Your task to perform on an android device: toggle notification dots Image 0: 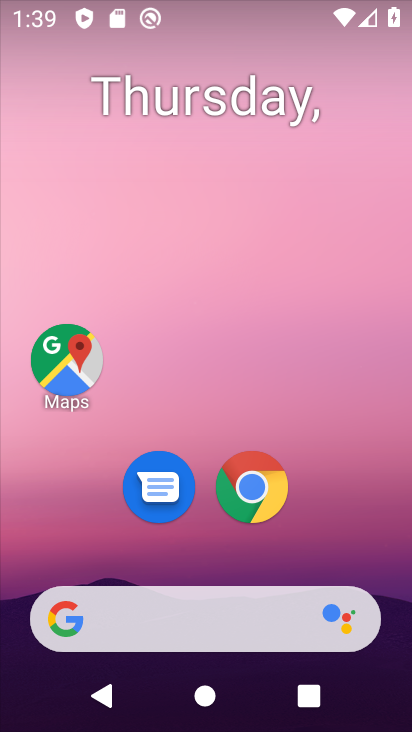
Step 0: drag from (314, 544) to (303, 0)
Your task to perform on an android device: toggle notification dots Image 1: 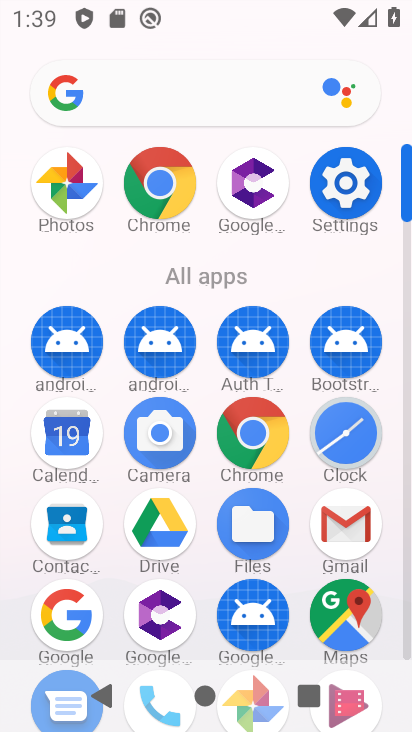
Step 1: click (337, 169)
Your task to perform on an android device: toggle notification dots Image 2: 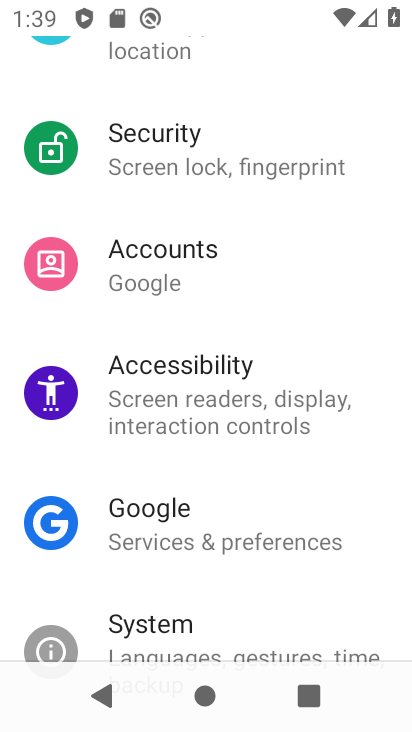
Step 2: drag from (154, 361) to (105, 585)
Your task to perform on an android device: toggle notification dots Image 3: 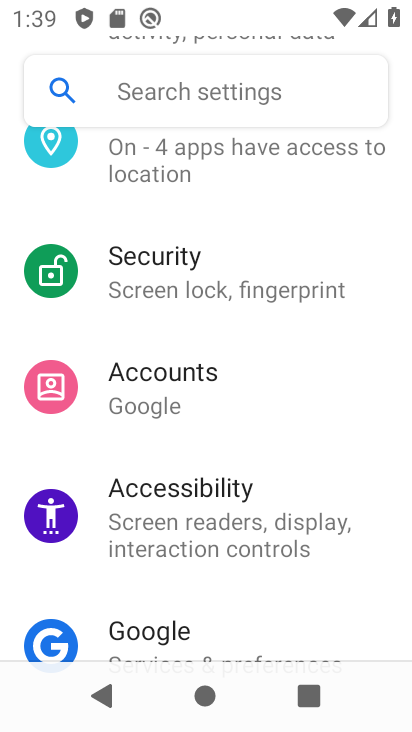
Step 3: drag from (141, 258) to (74, 551)
Your task to perform on an android device: toggle notification dots Image 4: 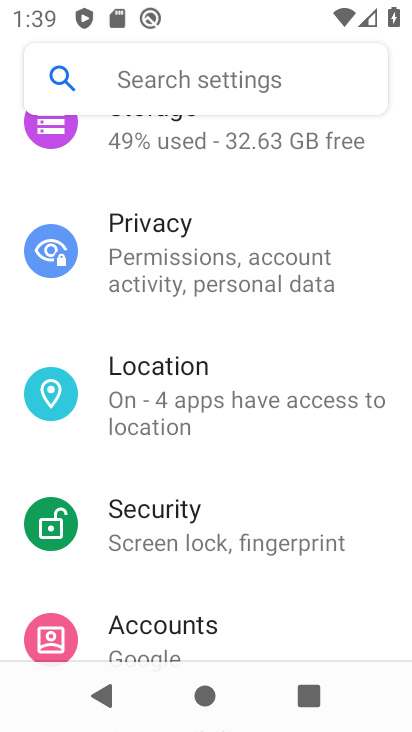
Step 4: drag from (134, 295) to (98, 542)
Your task to perform on an android device: toggle notification dots Image 5: 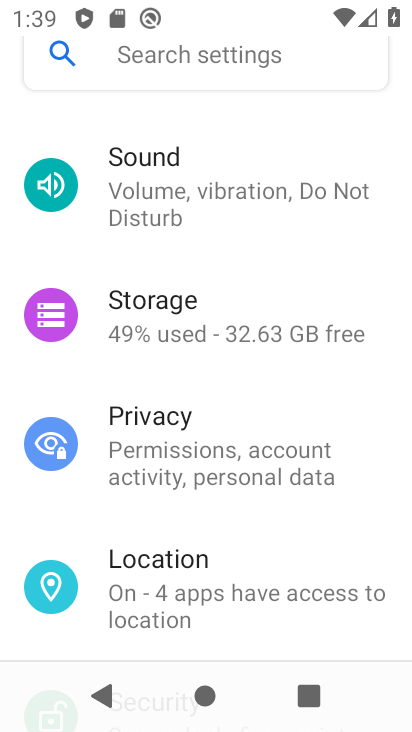
Step 5: drag from (91, 230) to (28, 545)
Your task to perform on an android device: toggle notification dots Image 6: 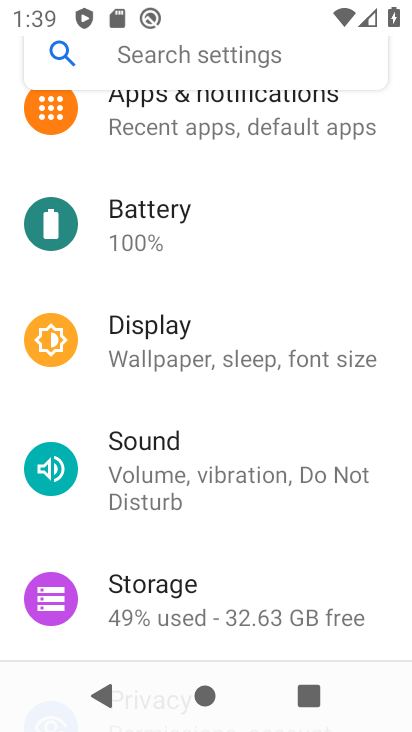
Step 6: drag from (159, 128) to (135, 467)
Your task to perform on an android device: toggle notification dots Image 7: 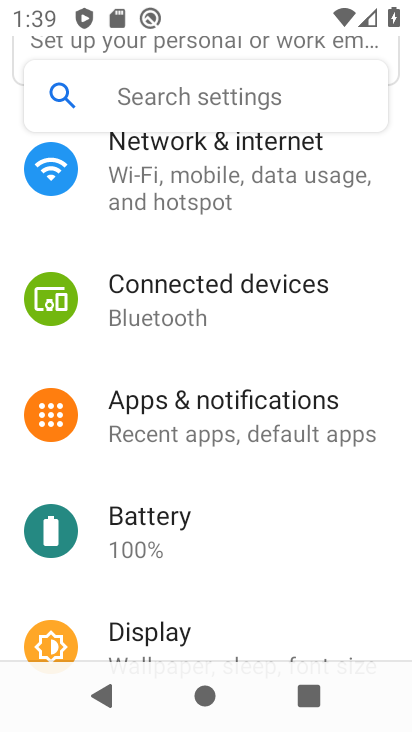
Step 7: click (155, 404)
Your task to perform on an android device: toggle notification dots Image 8: 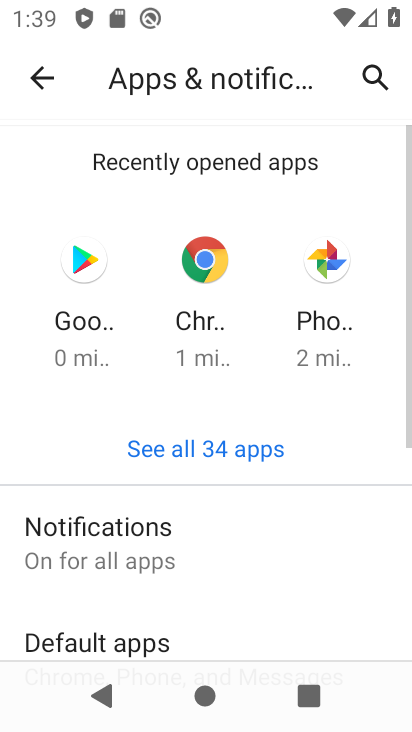
Step 8: drag from (170, 506) to (139, 185)
Your task to perform on an android device: toggle notification dots Image 9: 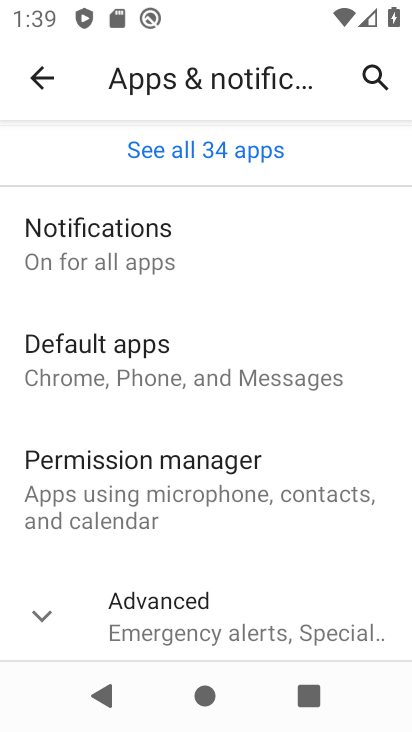
Step 9: click (151, 232)
Your task to perform on an android device: toggle notification dots Image 10: 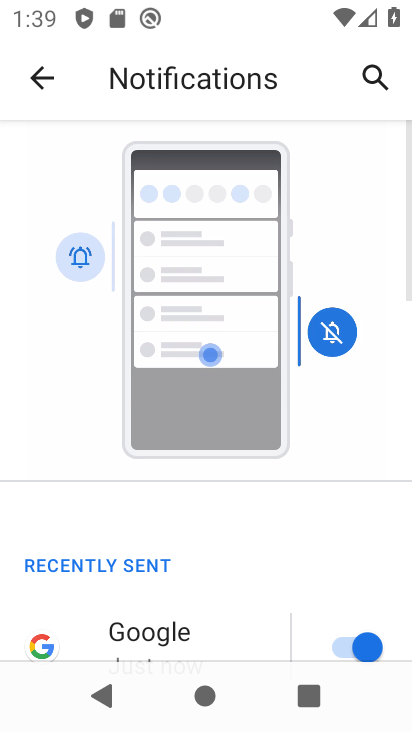
Step 10: drag from (181, 547) to (178, 226)
Your task to perform on an android device: toggle notification dots Image 11: 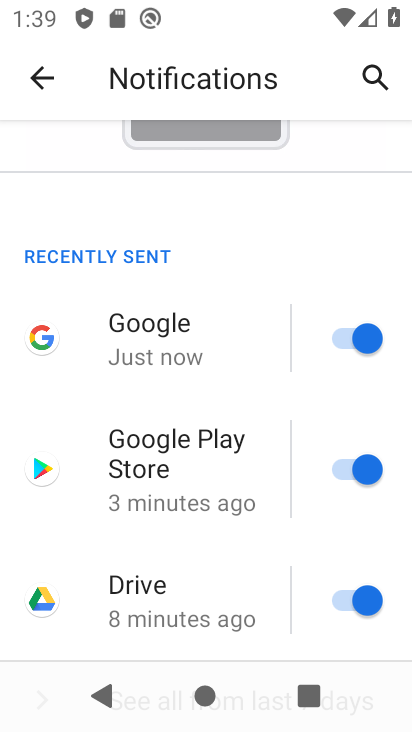
Step 11: drag from (182, 558) to (190, 188)
Your task to perform on an android device: toggle notification dots Image 12: 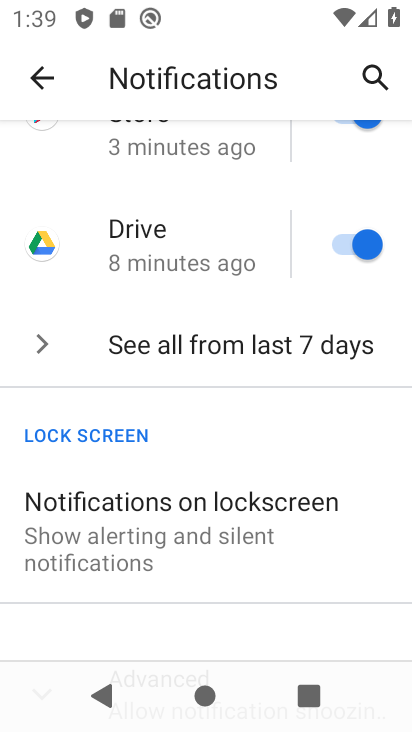
Step 12: drag from (259, 595) to (214, 237)
Your task to perform on an android device: toggle notification dots Image 13: 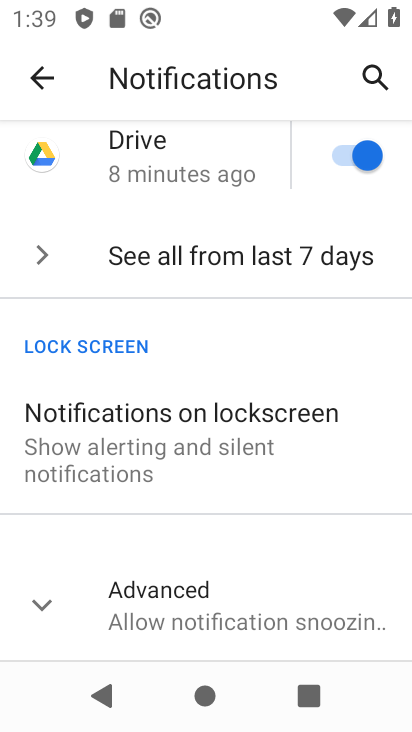
Step 13: click (169, 608)
Your task to perform on an android device: toggle notification dots Image 14: 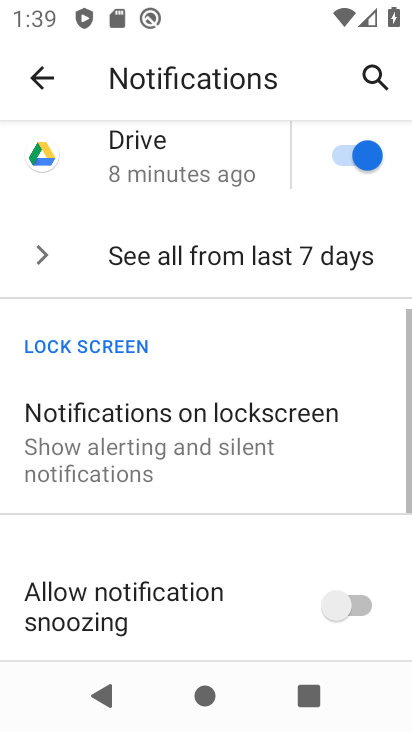
Step 14: drag from (169, 608) to (197, 77)
Your task to perform on an android device: toggle notification dots Image 15: 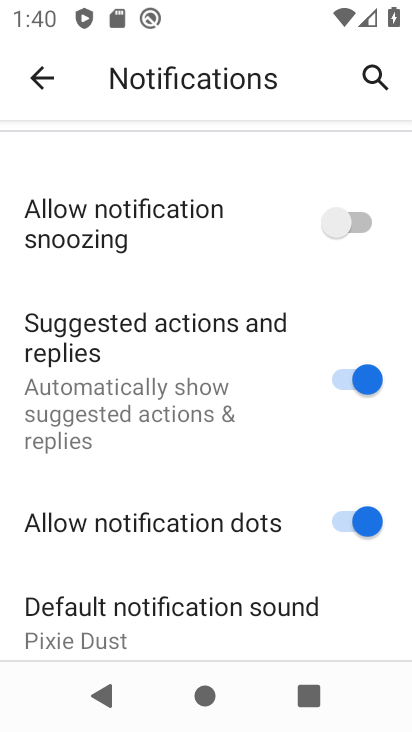
Step 15: click (335, 518)
Your task to perform on an android device: toggle notification dots Image 16: 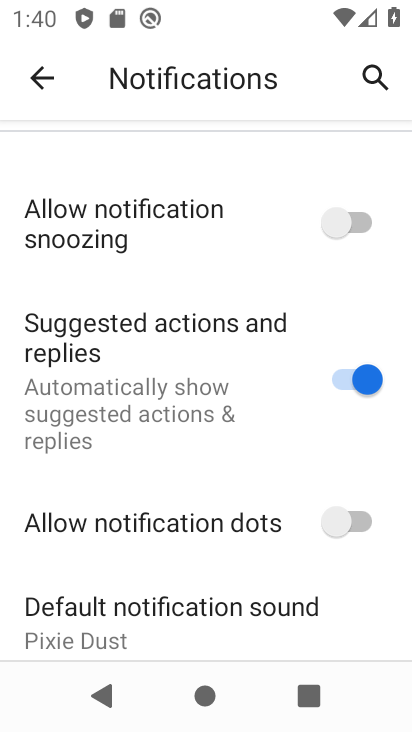
Step 16: task complete